Your task to perform on an android device: Open Wikipedia Image 0: 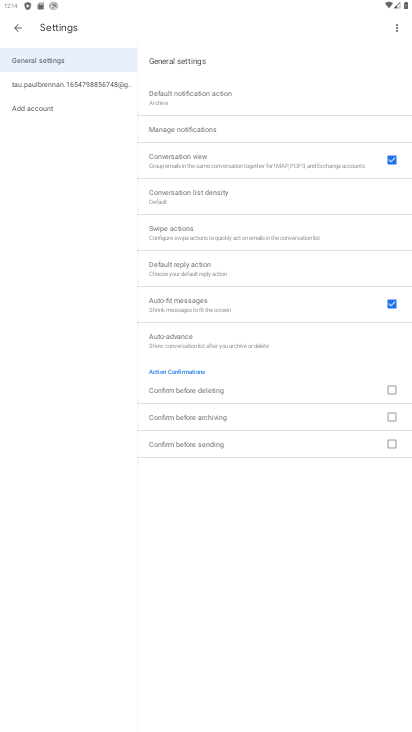
Step 0: press home button
Your task to perform on an android device: Open Wikipedia Image 1: 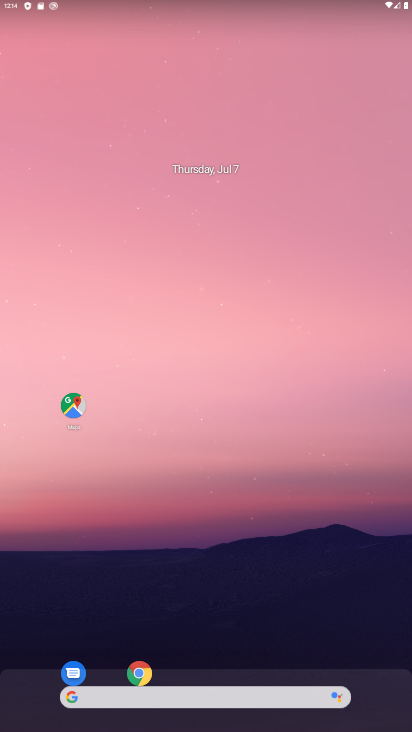
Step 1: click (137, 675)
Your task to perform on an android device: Open Wikipedia Image 2: 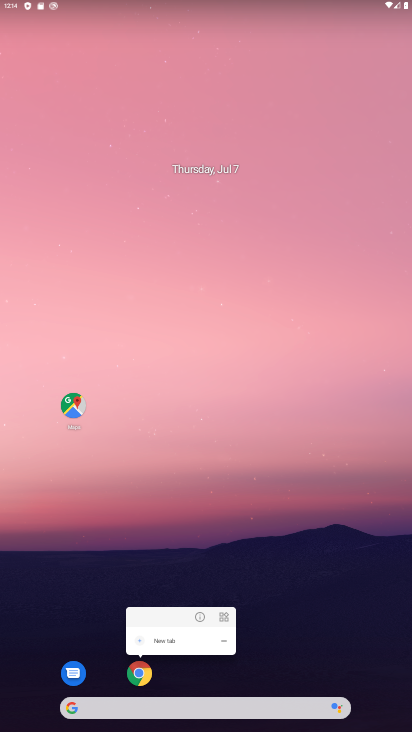
Step 2: click (140, 674)
Your task to perform on an android device: Open Wikipedia Image 3: 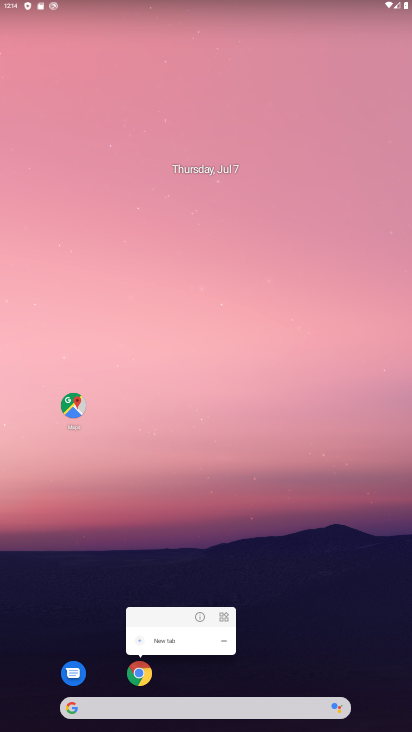
Step 3: click (140, 674)
Your task to perform on an android device: Open Wikipedia Image 4: 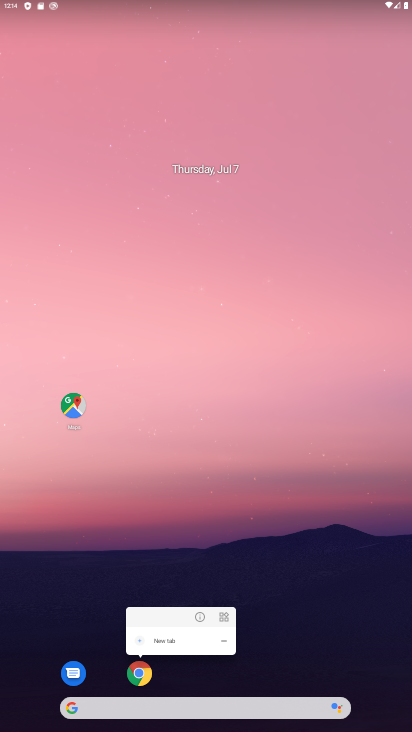
Step 4: click (145, 668)
Your task to perform on an android device: Open Wikipedia Image 5: 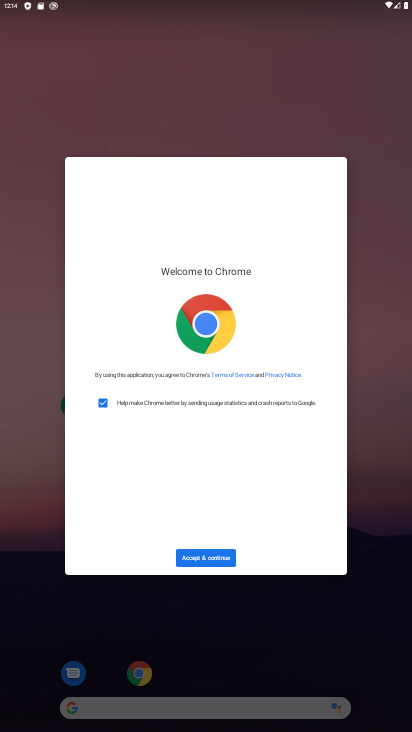
Step 5: click (211, 564)
Your task to perform on an android device: Open Wikipedia Image 6: 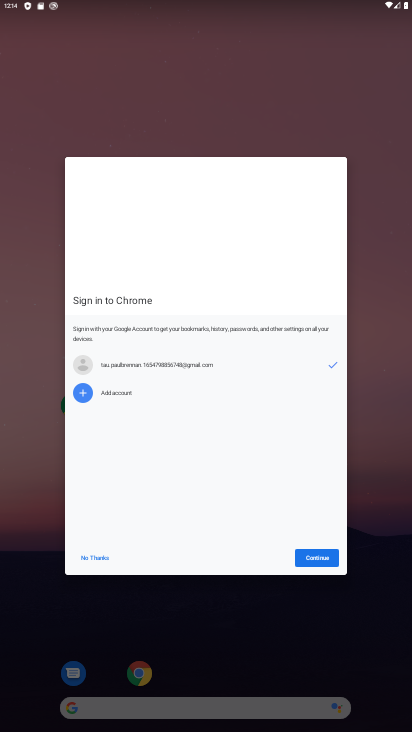
Step 6: click (312, 560)
Your task to perform on an android device: Open Wikipedia Image 7: 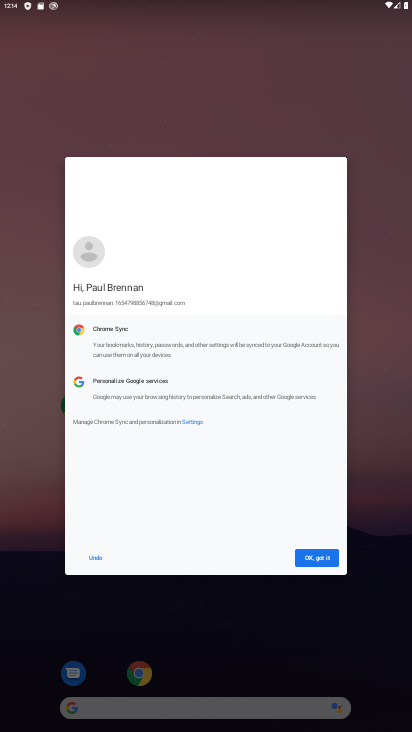
Step 7: click (312, 559)
Your task to perform on an android device: Open Wikipedia Image 8: 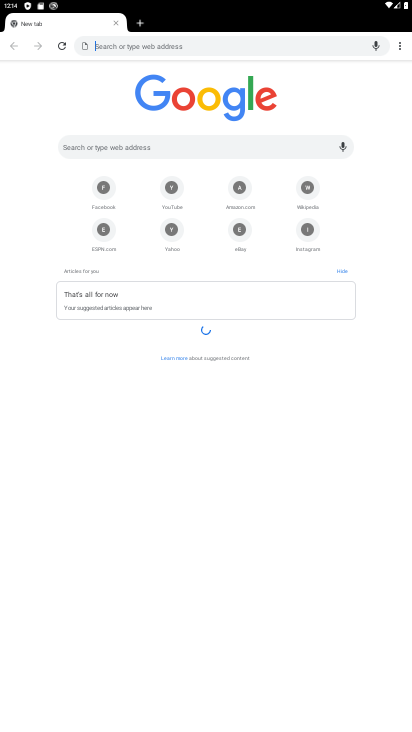
Step 8: click (302, 190)
Your task to perform on an android device: Open Wikipedia Image 9: 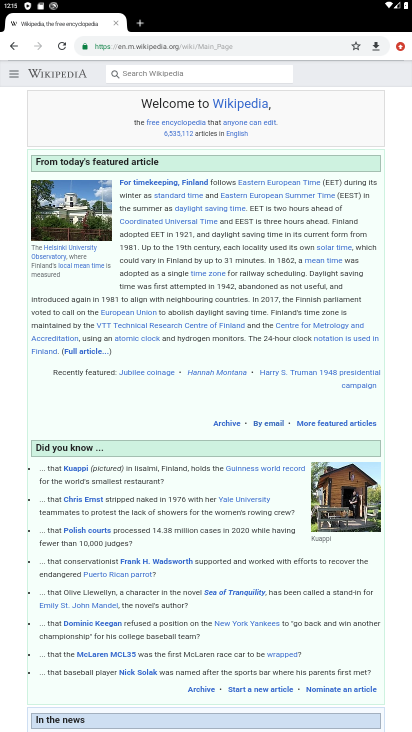
Step 9: task complete